Your task to perform on an android device: Open my contact list Image 0: 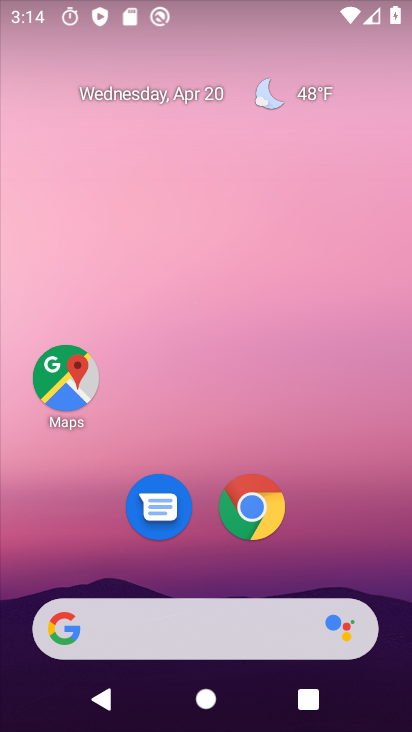
Step 0: drag from (215, 633) to (168, 119)
Your task to perform on an android device: Open my contact list Image 1: 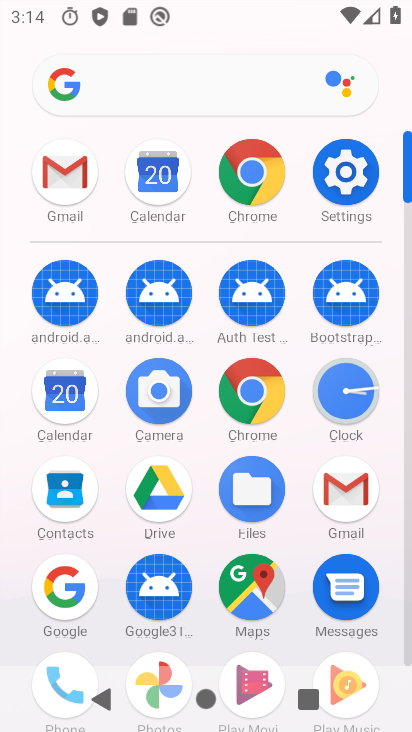
Step 1: click (53, 504)
Your task to perform on an android device: Open my contact list Image 2: 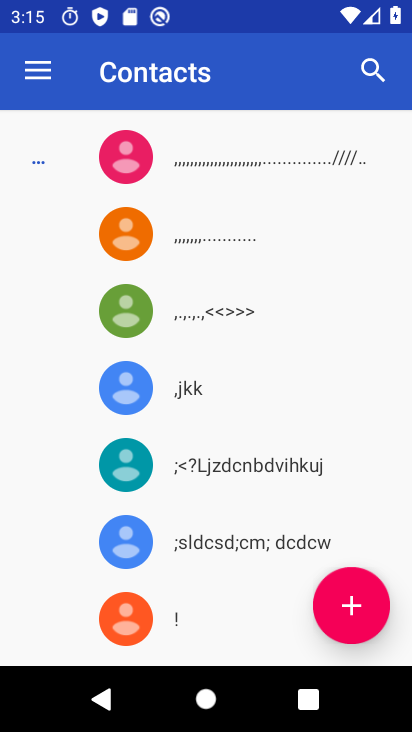
Step 2: task complete